Your task to perform on an android device: What's the weather? Image 0: 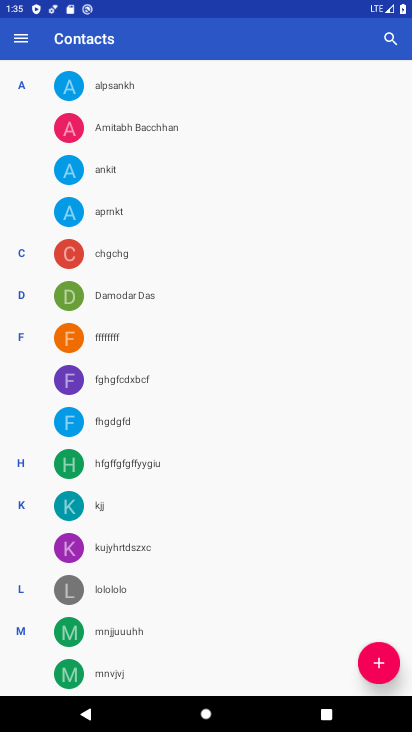
Step 0: press home button
Your task to perform on an android device: What's the weather? Image 1: 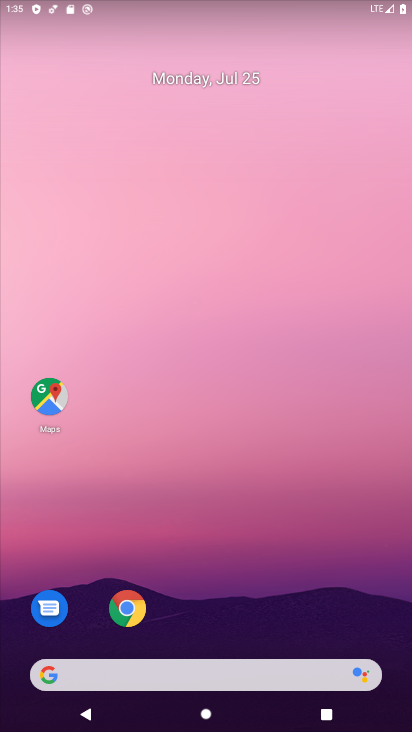
Step 1: drag from (166, 658) to (238, 34)
Your task to perform on an android device: What's the weather? Image 2: 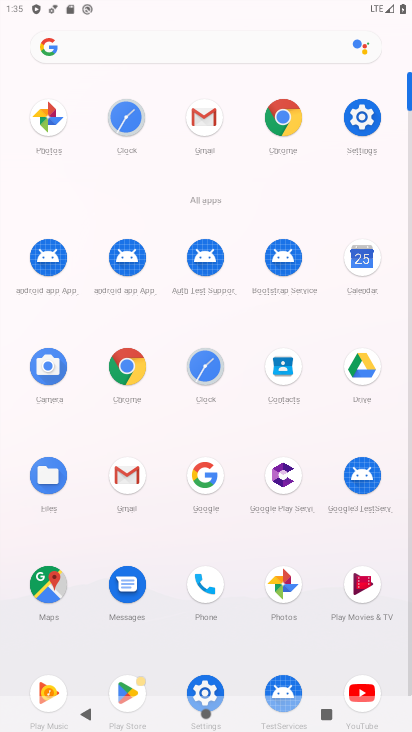
Step 2: click (197, 485)
Your task to perform on an android device: What's the weather? Image 3: 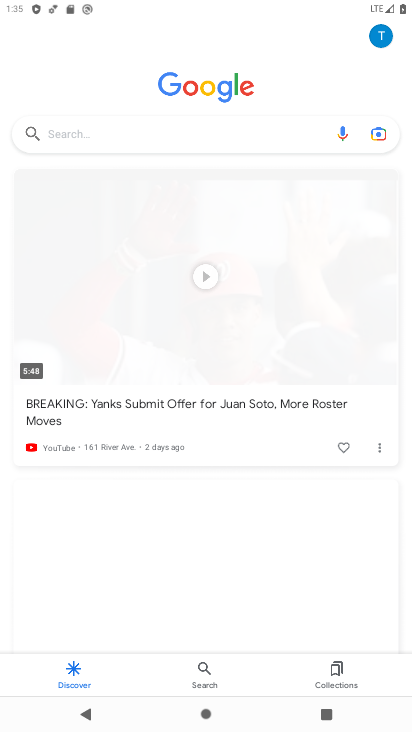
Step 3: click (97, 129)
Your task to perform on an android device: What's the weather? Image 4: 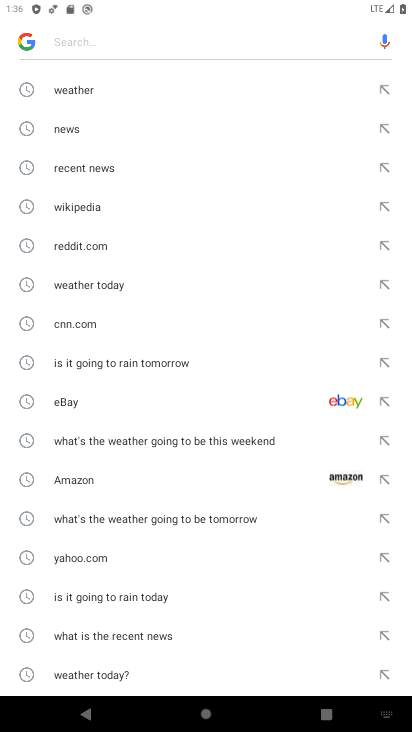
Step 4: click (96, 94)
Your task to perform on an android device: What's the weather? Image 5: 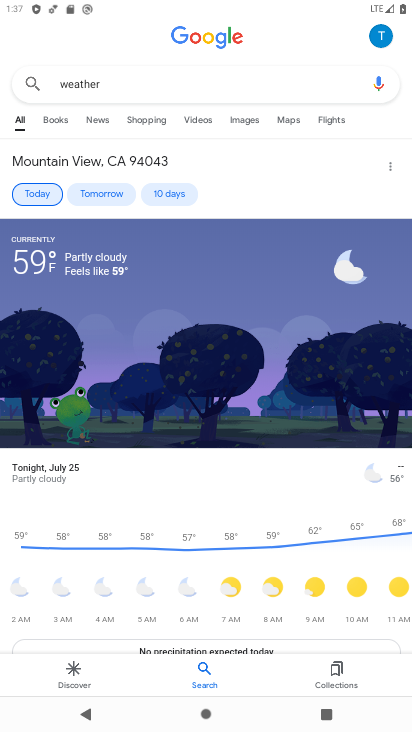
Step 5: task complete